Your task to perform on an android device: open a bookmark in the chrome app Image 0: 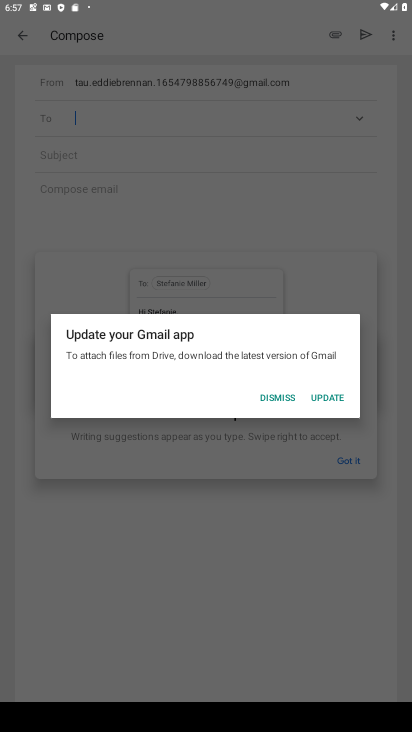
Step 0: press home button
Your task to perform on an android device: open a bookmark in the chrome app Image 1: 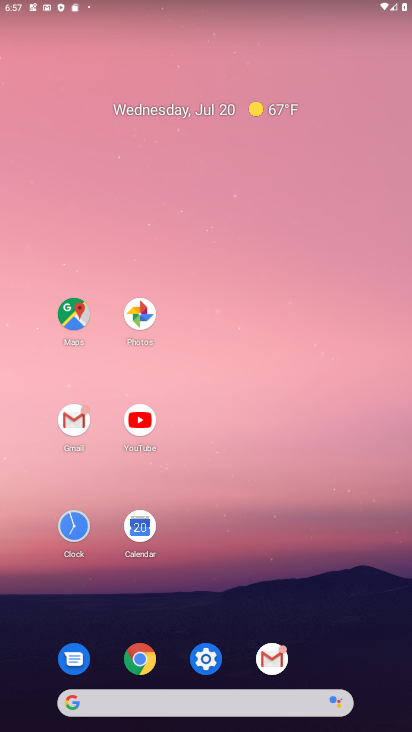
Step 1: click (140, 662)
Your task to perform on an android device: open a bookmark in the chrome app Image 2: 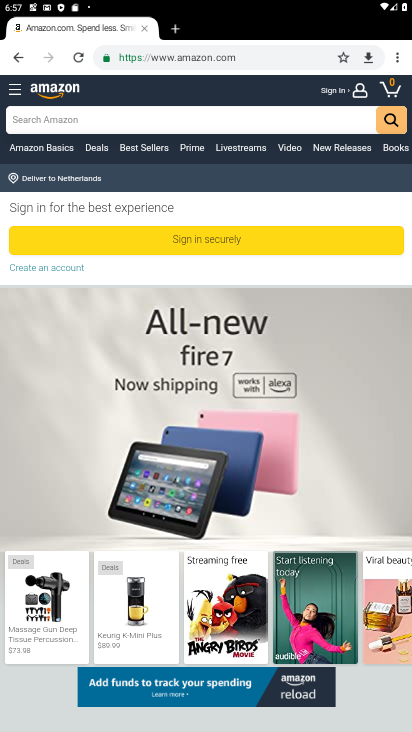
Step 2: click (396, 55)
Your task to perform on an android device: open a bookmark in the chrome app Image 3: 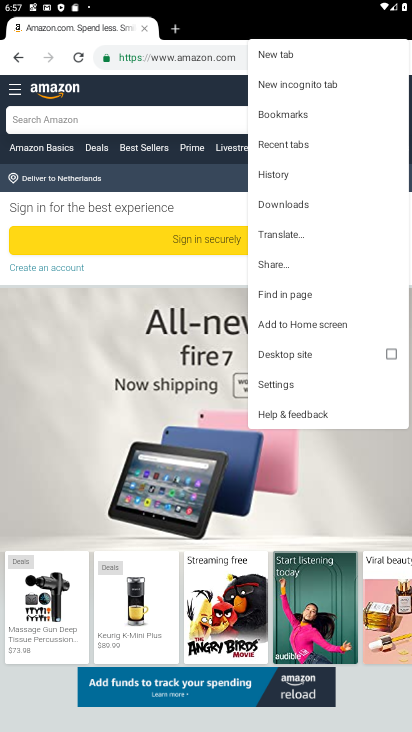
Step 3: click (292, 113)
Your task to perform on an android device: open a bookmark in the chrome app Image 4: 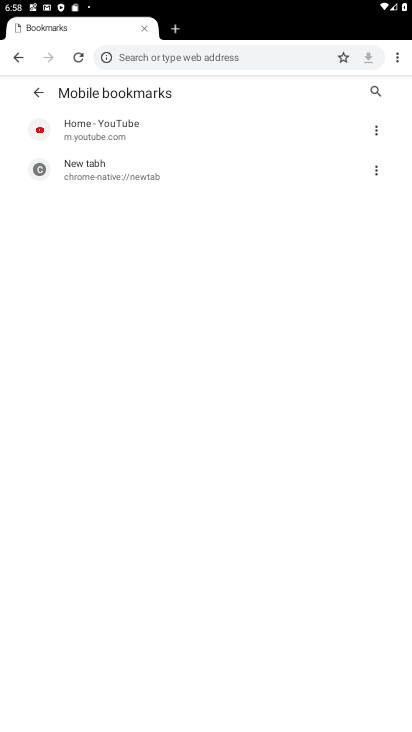
Step 4: task complete